Your task to perform on an android device: turn off airplane mode Image 0: 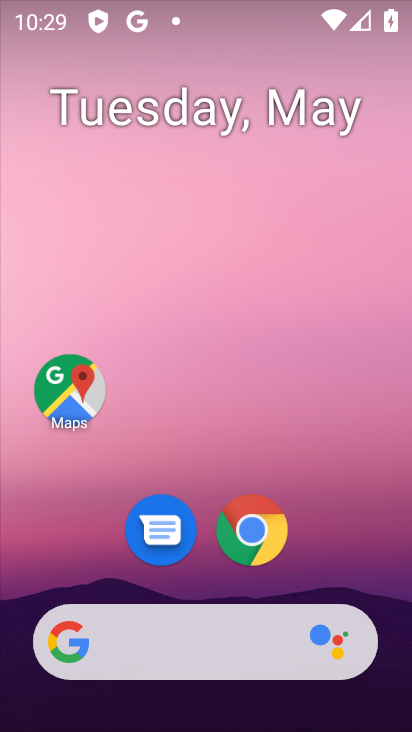
Step 0: drag from (325, 398) to (246, 95)
Your task to perform on an android device: turn off airplane mode Image 1: 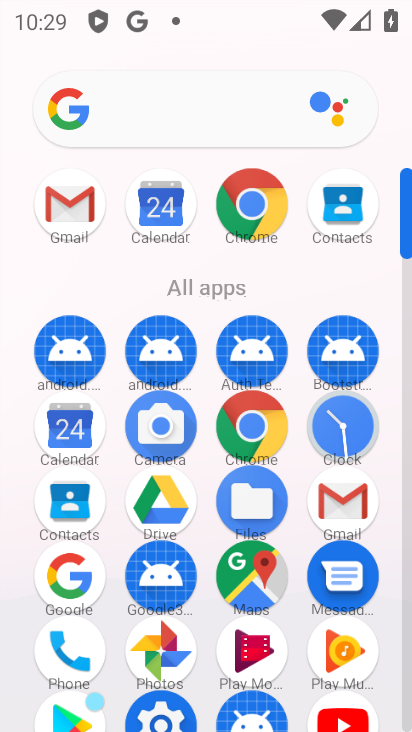
Step 1: click (168, 710)
Your task to perform on an android device: turn off airplane mode Image 2: 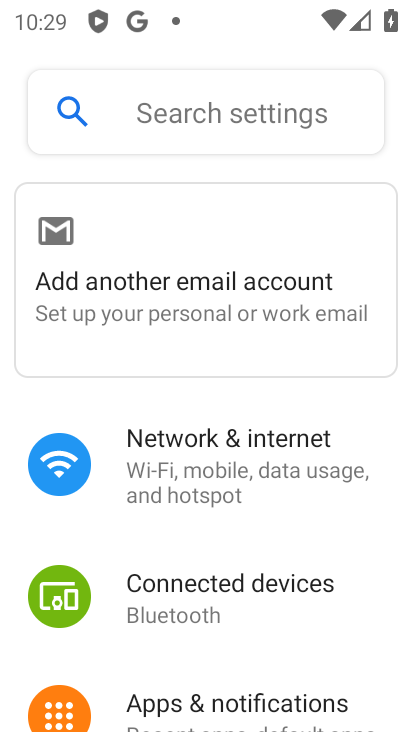
Step 2: click (253, 492)
Your task to perform on an android device: turn off airplane mode Image 3: 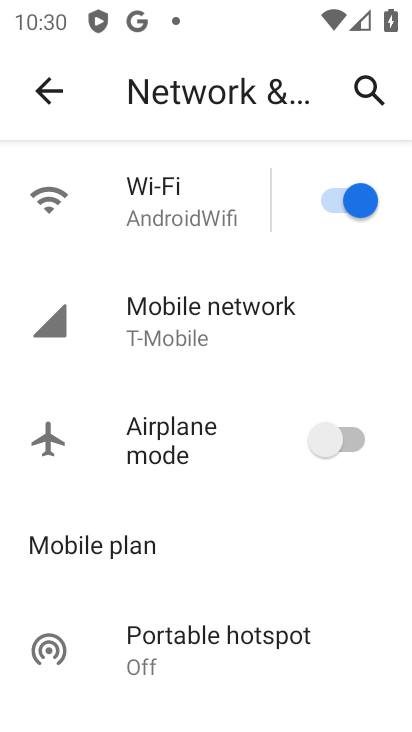
Step 3: task complete